Your task to perform on an android device: Open the stopwatch Image 0: 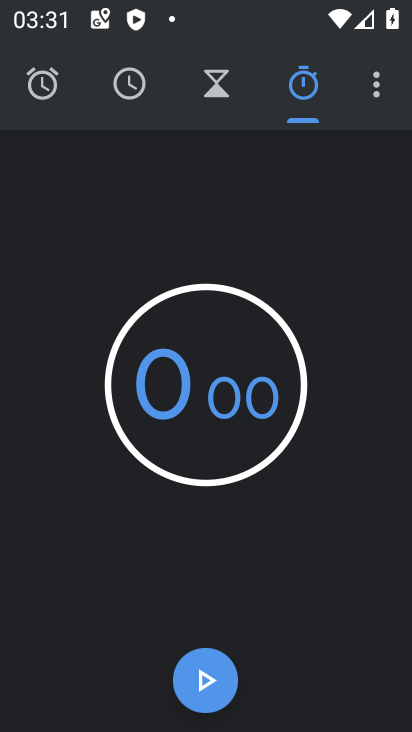
Step 0: press home button
Your task to perform on an android device: Open the stopwatch Image 1: 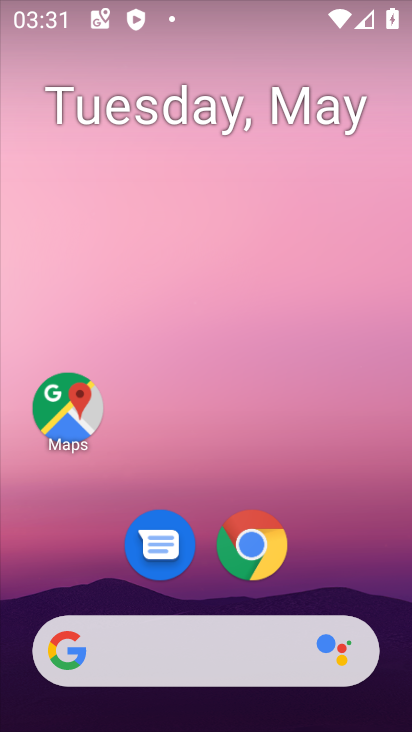
Step 1: drag from (391, 607) to (258, 37)
Your task to perform on an android device: Open the stopwatch Image 2: 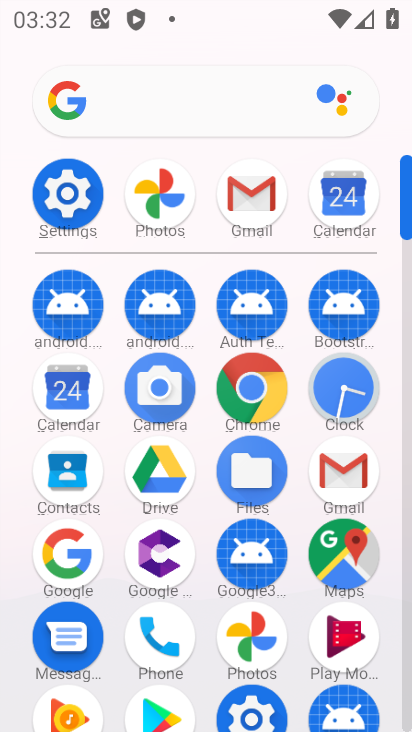
Step 2: click (407, 665)
Your task to perform on an android device: Open the stopwatch Image 3: 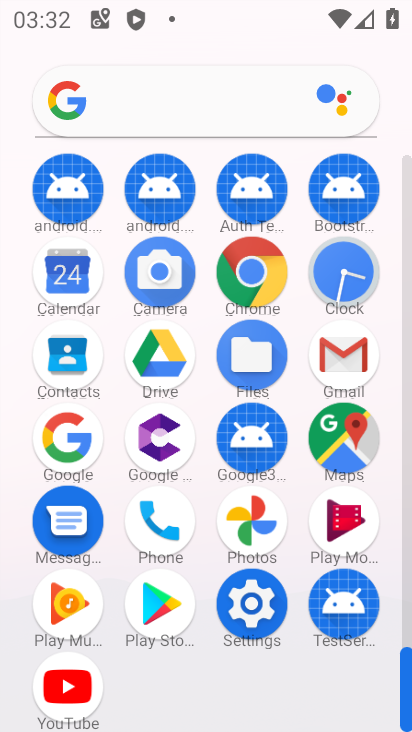
Step 3: click (340, 273)
Your task to perform on an android device: Open the stopwatch Image 4: 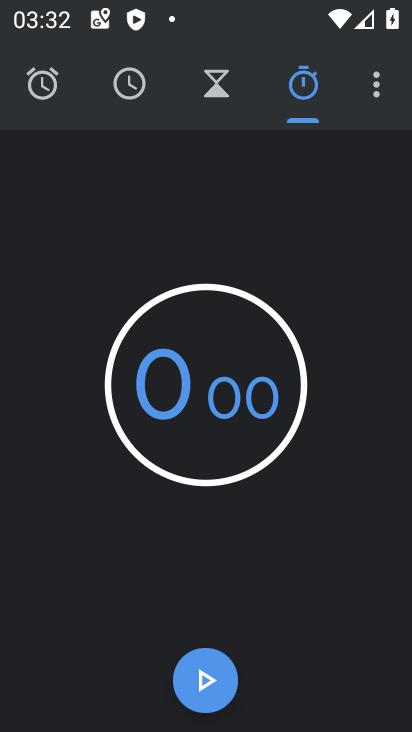
Step 4: task complete